Your task to perform on an android device: Open ESPN.com Image 0: 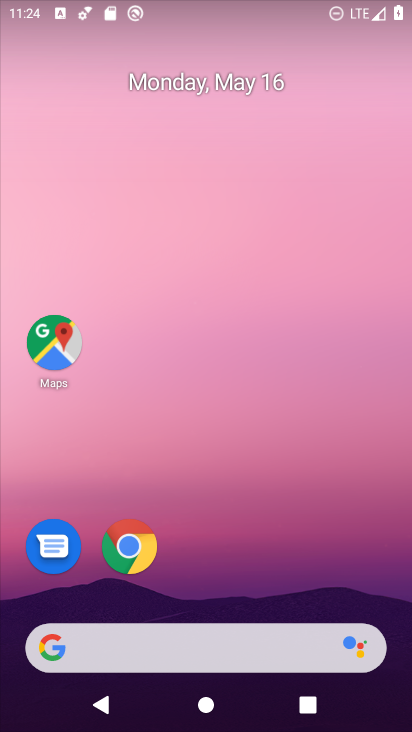
Step 0: click (116, 635)
Your task to perform on an android device: Open ESPN.com Image 1: 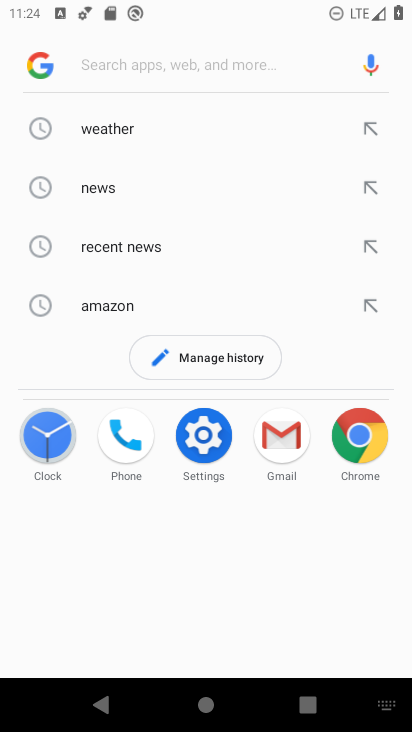
Step 1: type "espn.com"
Your task to perform on an android device: Open ESPN.com Image 2: 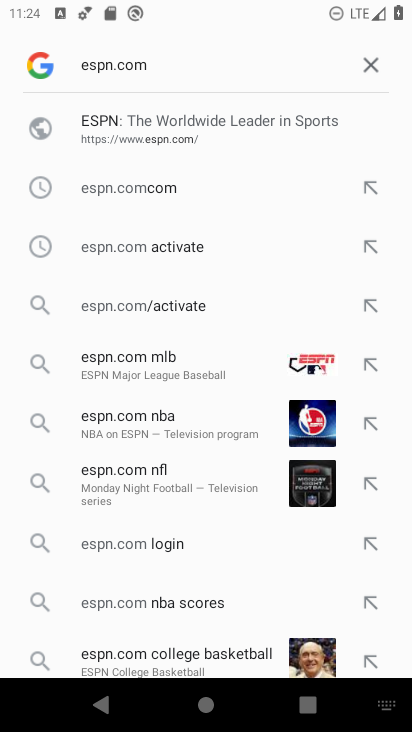
Step 2: click (145, 136)
Your task to perform on an android device: Open ESPN.com Image 3: 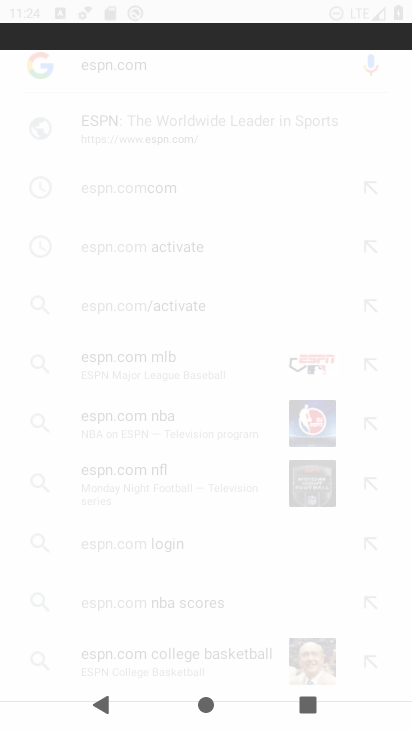
Step 3: click (166, 127)
Your task to perform on an android device: Open ESPN.com Image 4: 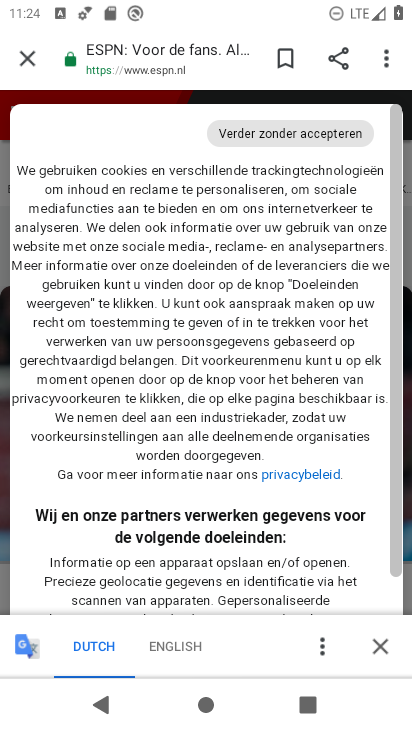
Step 4: task complete